Your task to perform on an android device: Go to battery settings Image 0: 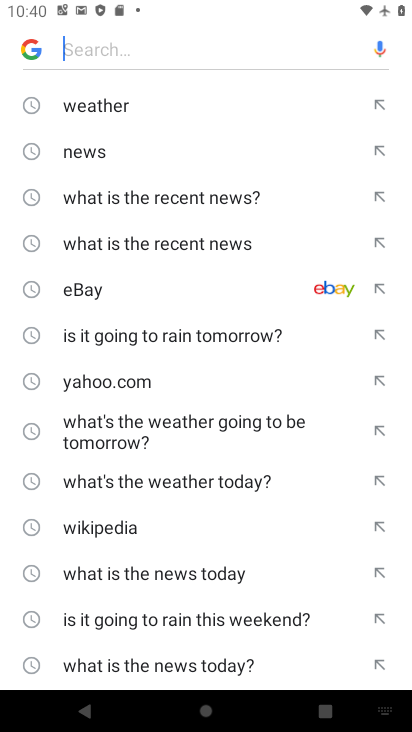
Step 0: press home button
Your task to perform on an android device: Go to battery settings Image 1: 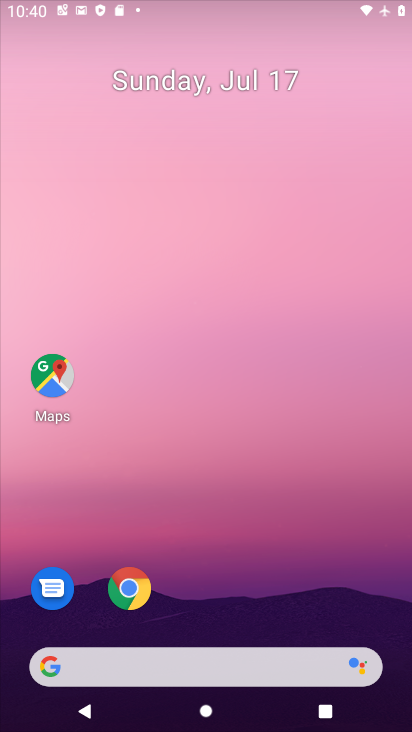
Step 1: drag from (247, 568) to (295, 64)
Your task to perform on an android device: Go to battery settings Image 2: 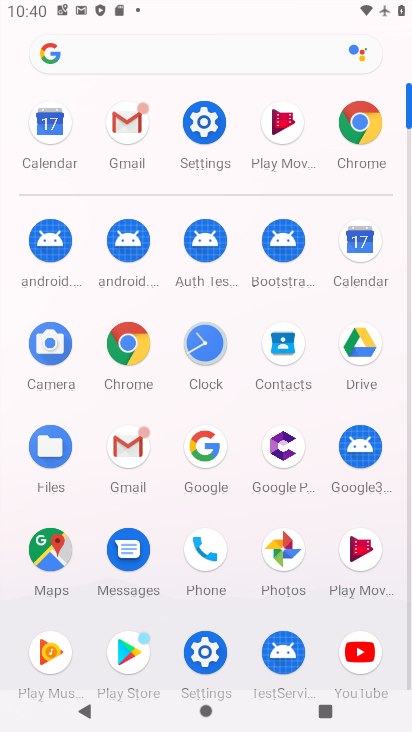
Step 2: click (220, 663)
Your task to perform on an android device: Go to battery settings Image 3: 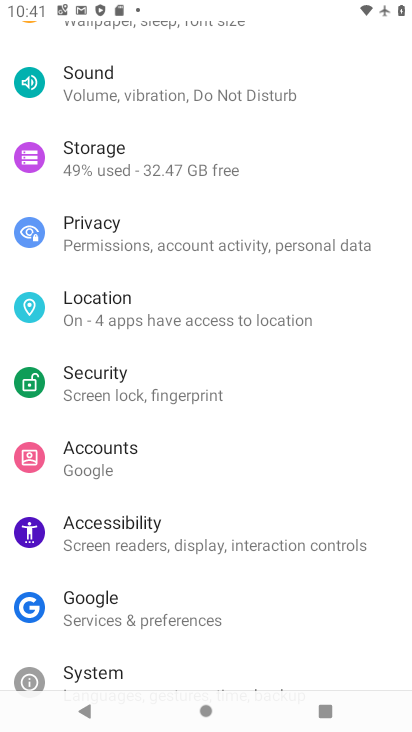
Step 3: drag from (191, 153) to (156, 708)
Your task to perform on an android device: Go to battery settings Image 4: 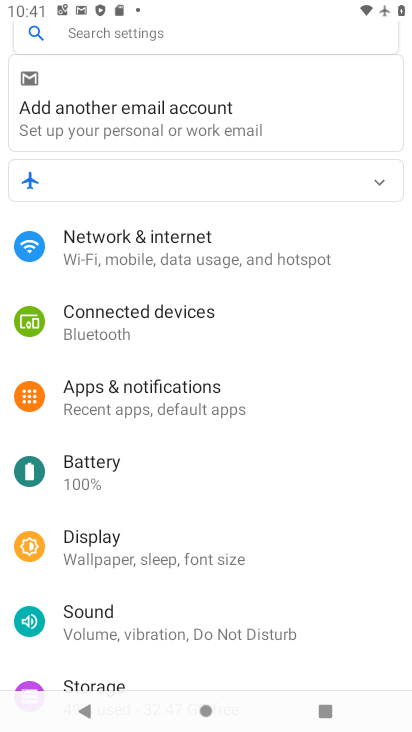
Step 4: click (113, 485)
Your task to perform on an android device: Go to battery settings Image 5: 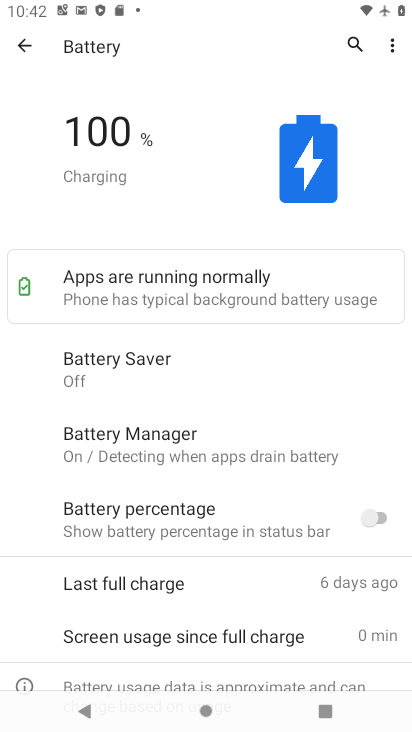
Step 5: task complete